Your task to perform on an android device: add a contact in the contacts app Image 0: 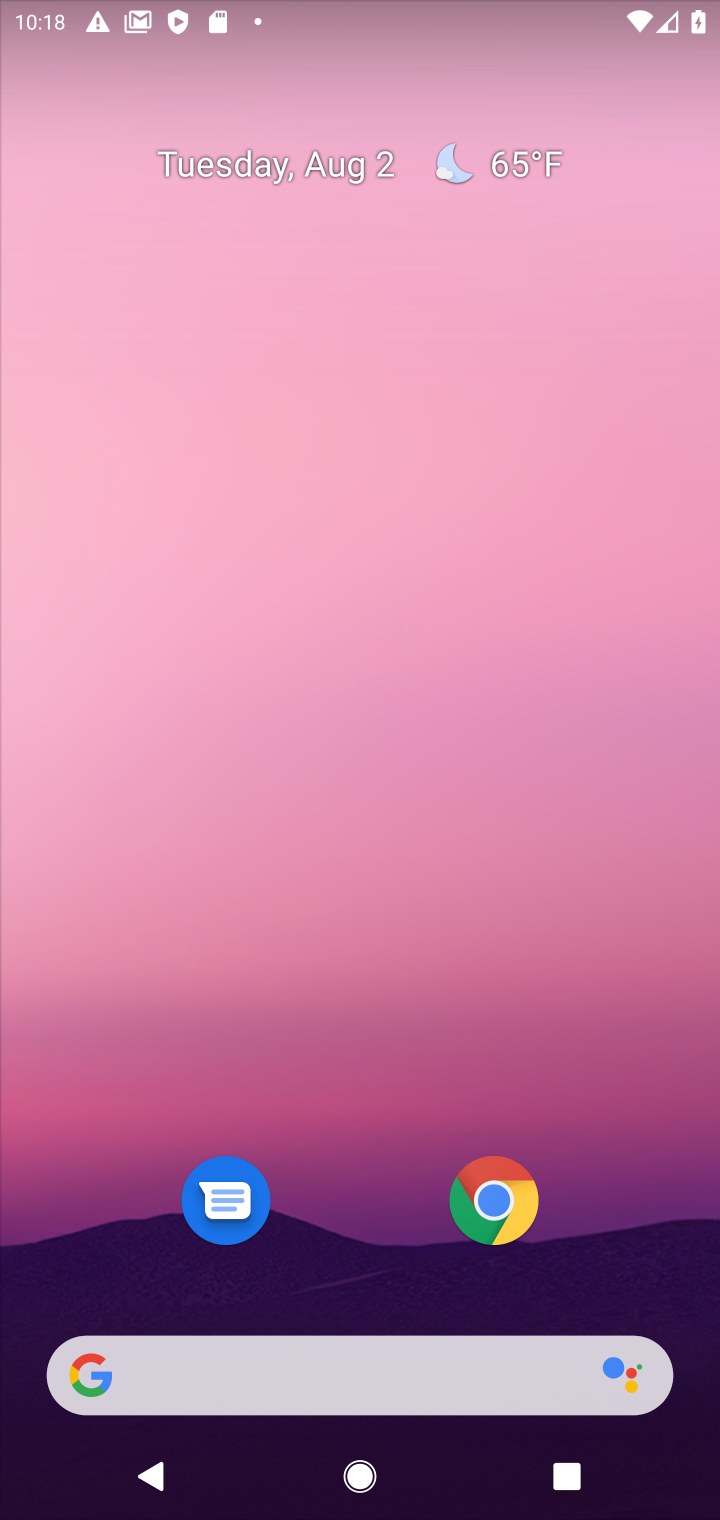
Step 0: drag from (643, 1263) to (579, 291)
Your task to perform on an android device: add a contact in the contacts app Image 1: 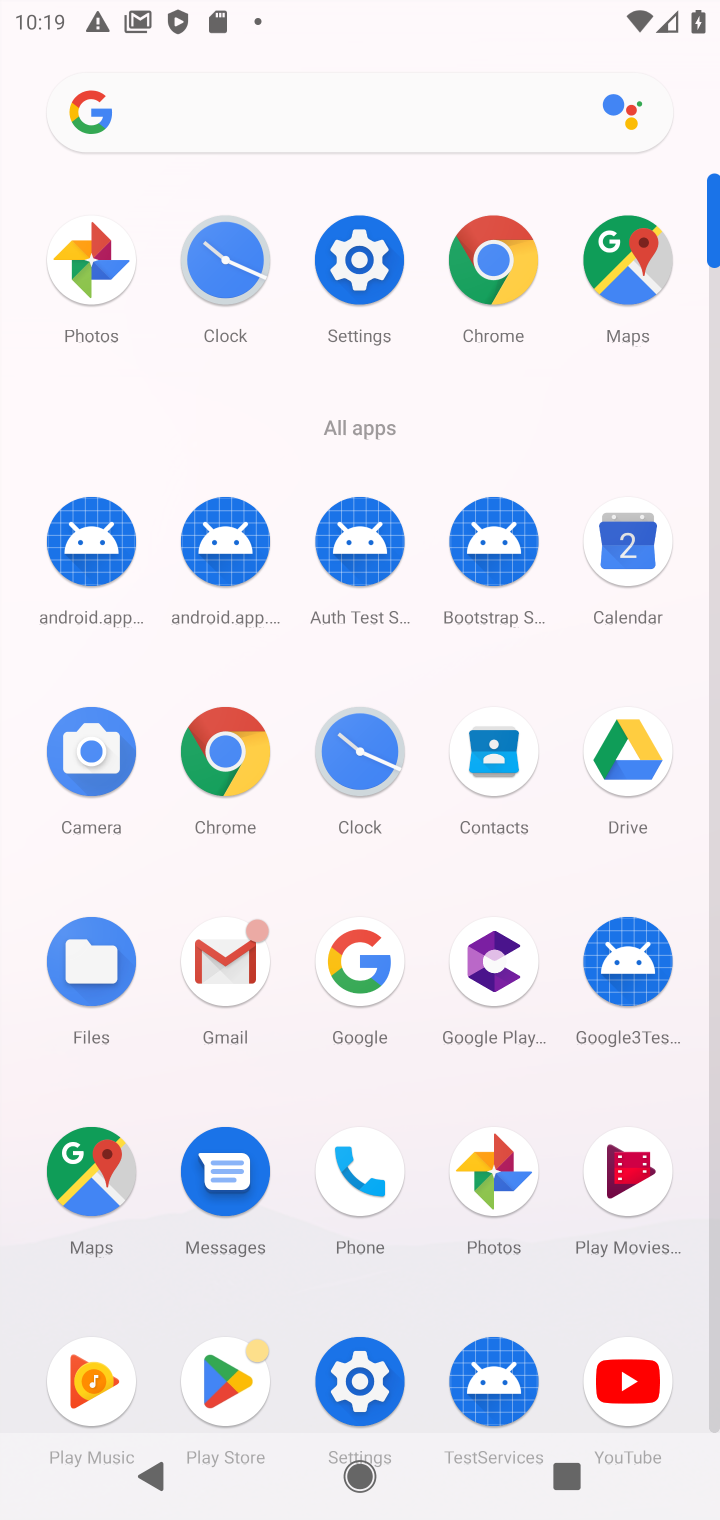
Step 1: click (498, 743)
Your task to perform on an android device: add a contact in the contacts app Image 2: 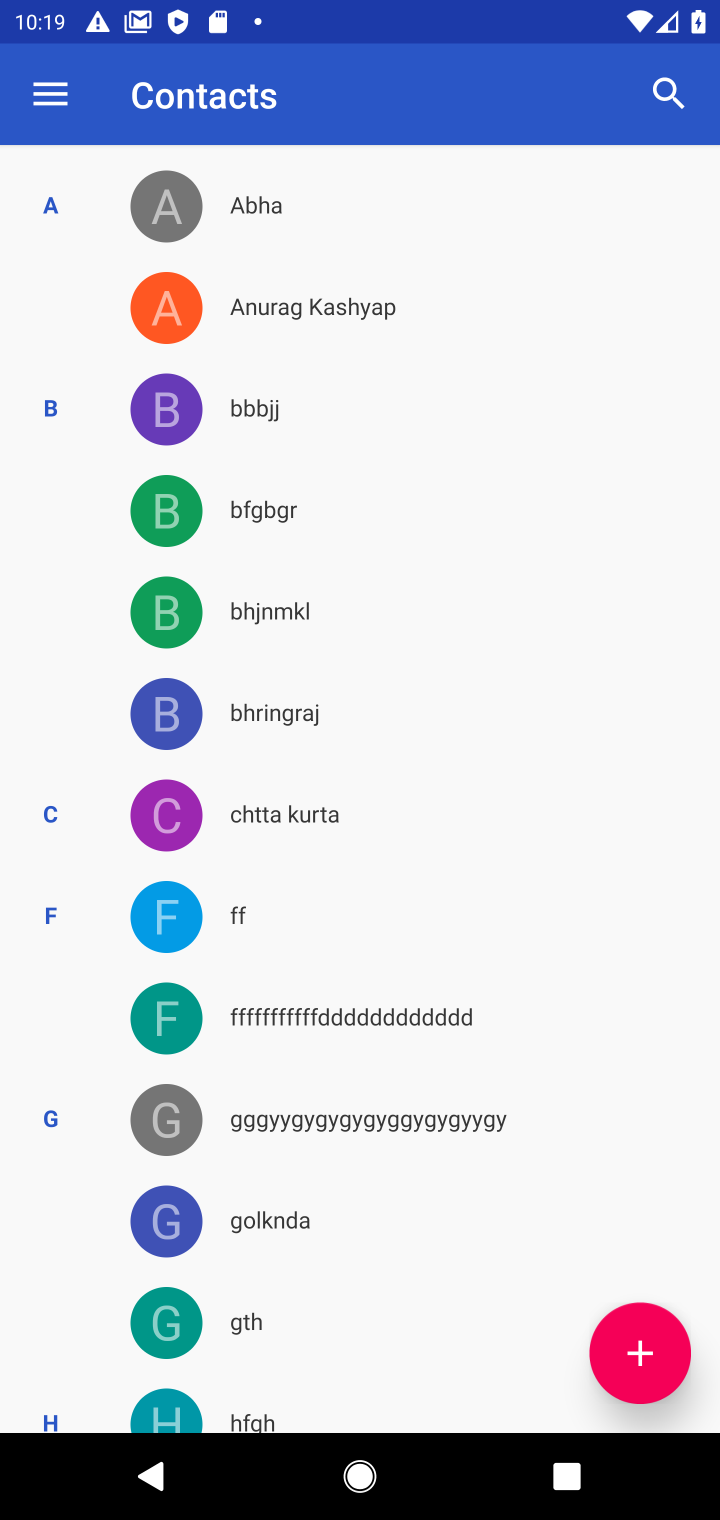
Step 2: click (650, 1359)
Your task to perform on an android device: add a contact in the contacts app Image 3: 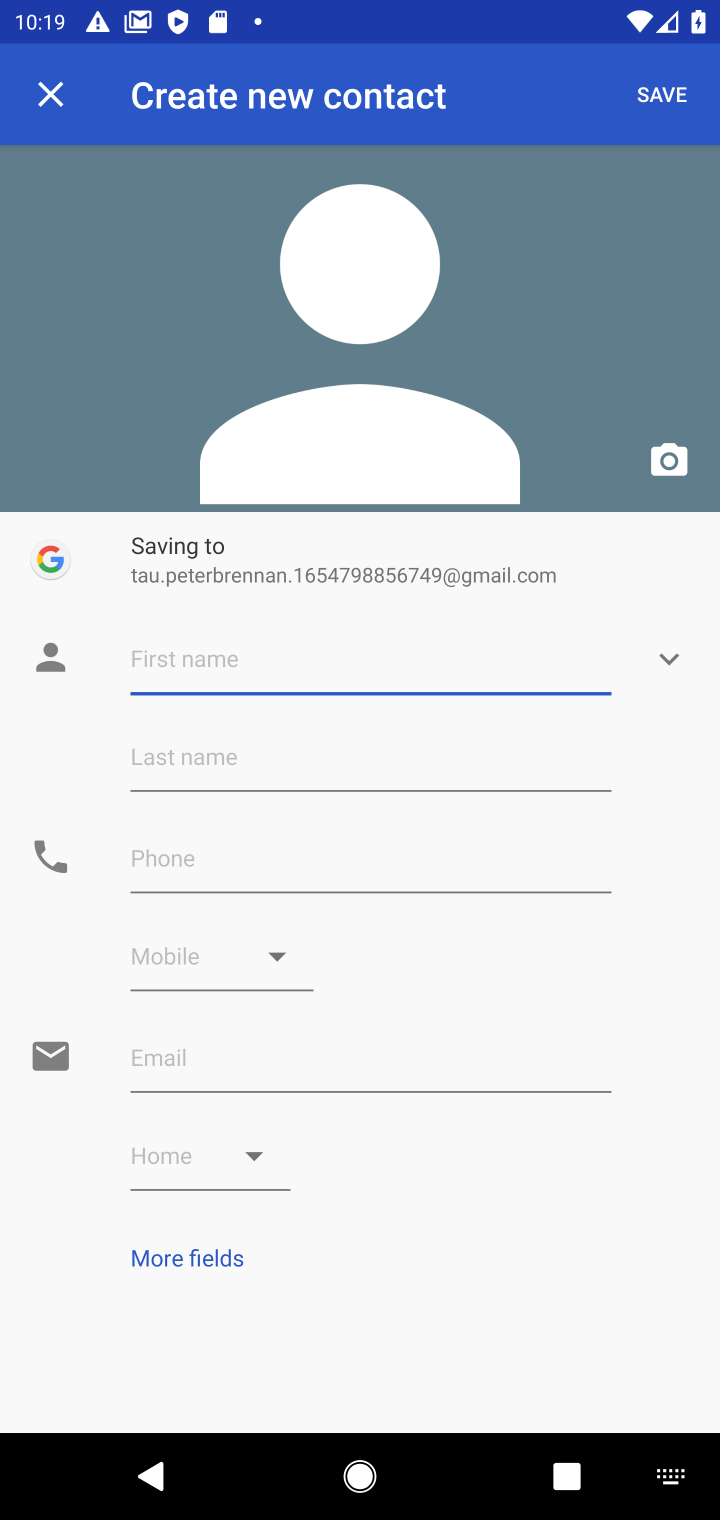
Step 3: type "jhmvfgfd"
Your task to perform on an android device: add a contact in the contacts app Image 4: 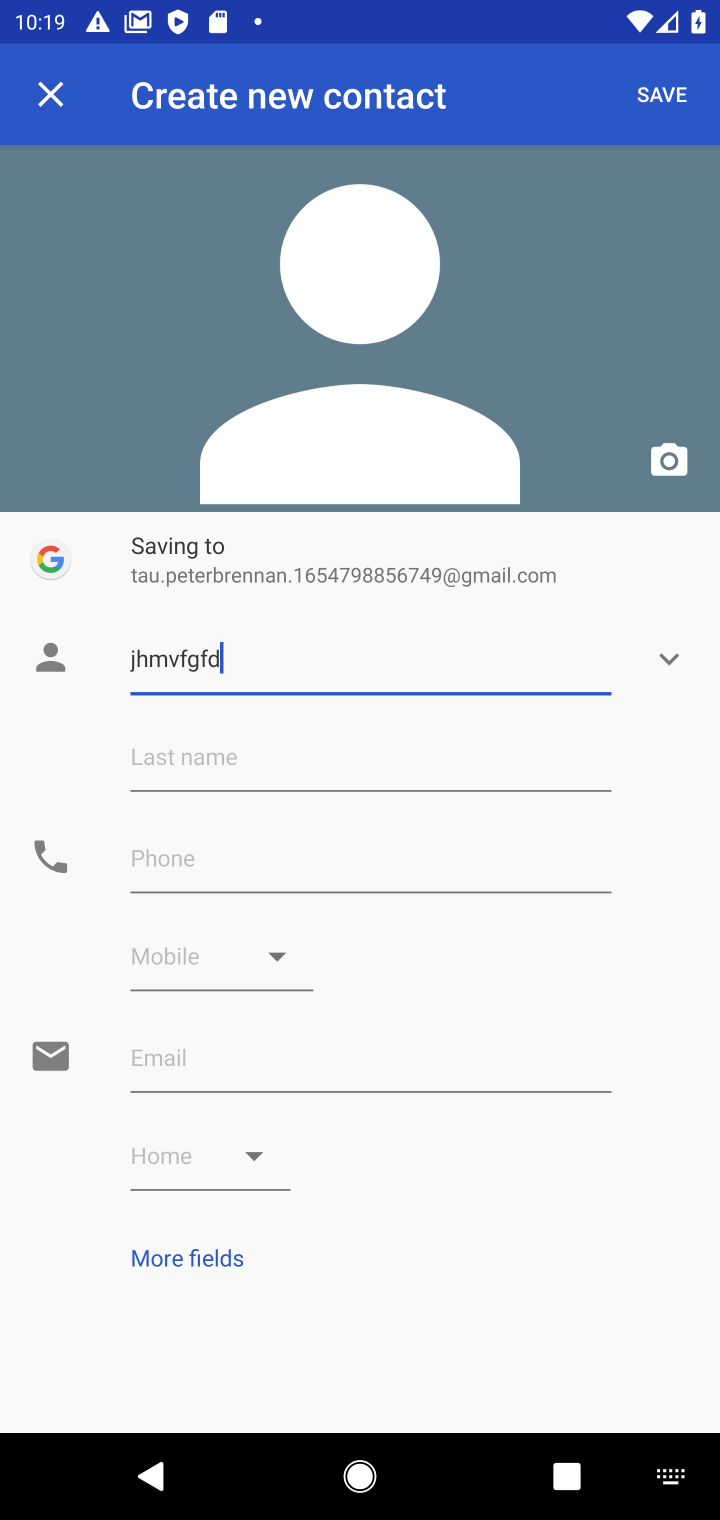
Step 4: click (238, 871)
Your task to perform on an android device: add a contact in the contacts app Image 5: 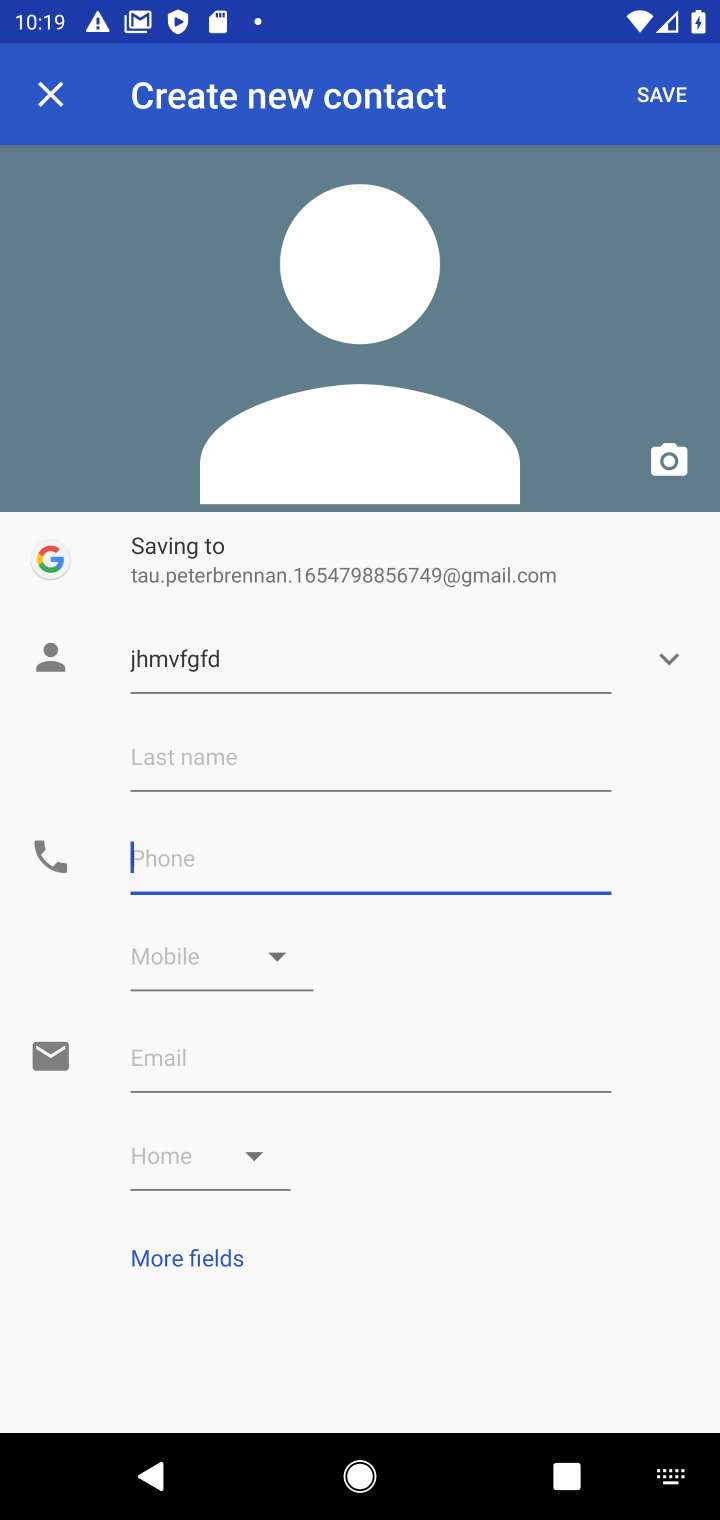
Step 5: type "0907896553"
Your task to perform on an android device: add a contact in the contacts app Image 6: 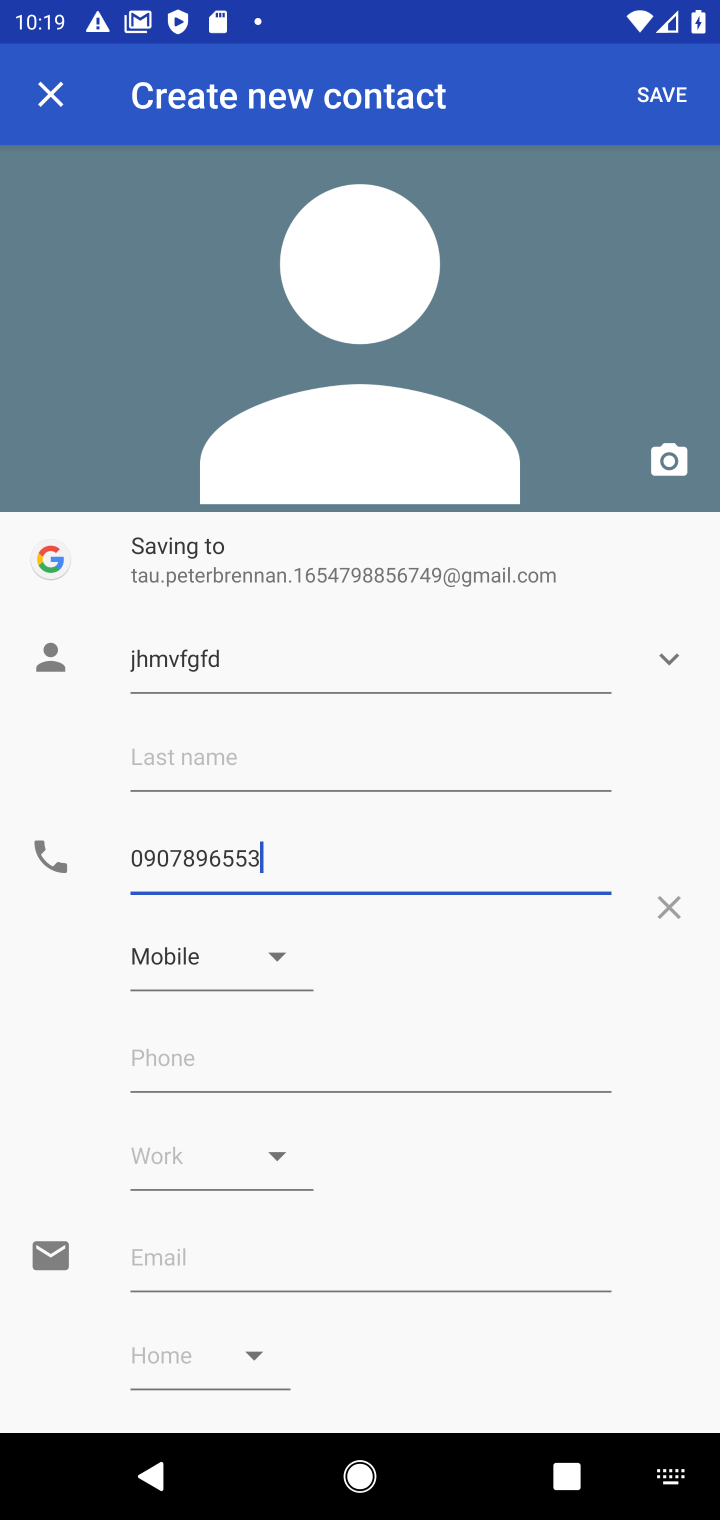
Step 6: click (663, 92)
Your task to perform on an android device: add a contact in the contacts app Image 7: 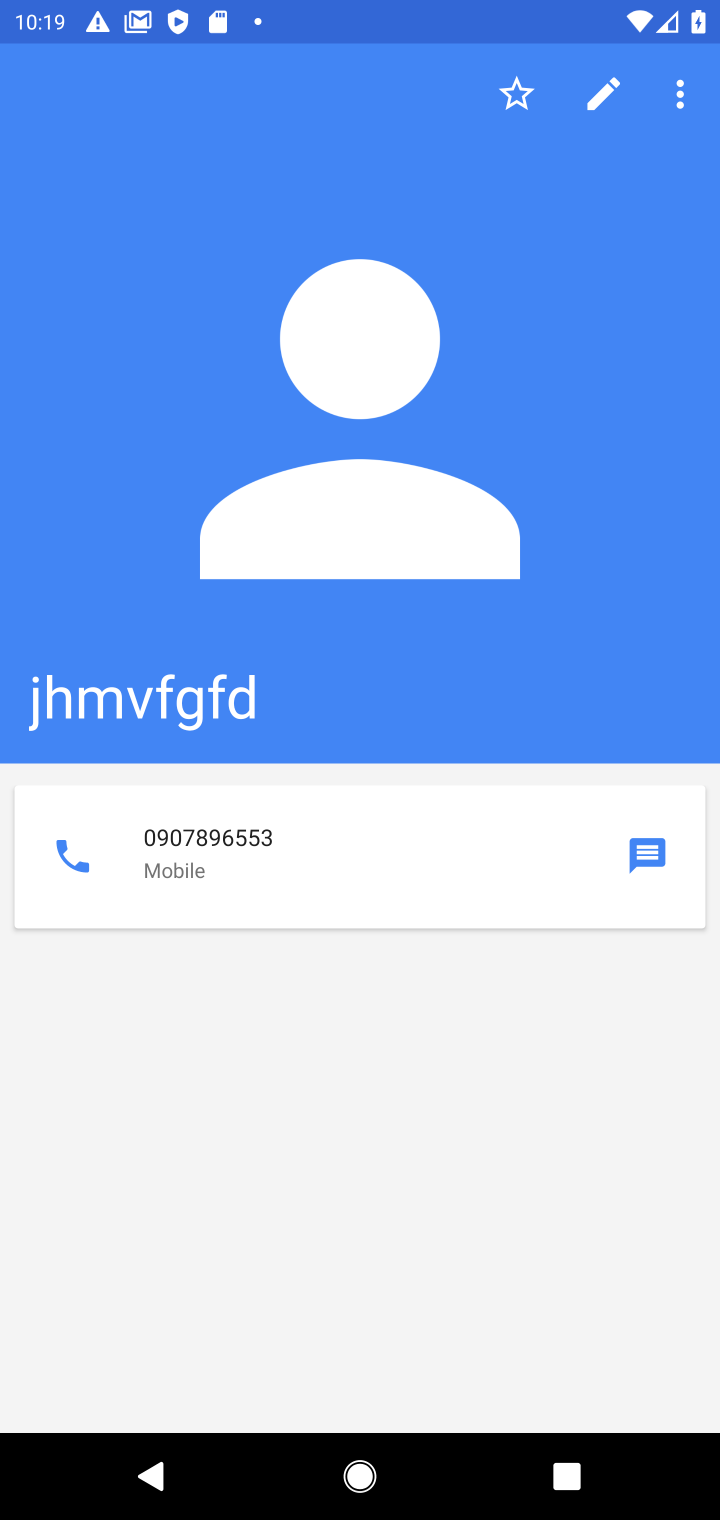
Step 7: task complete